Your task to perform on an android device: Show me popular videos on Youtube Image 0: 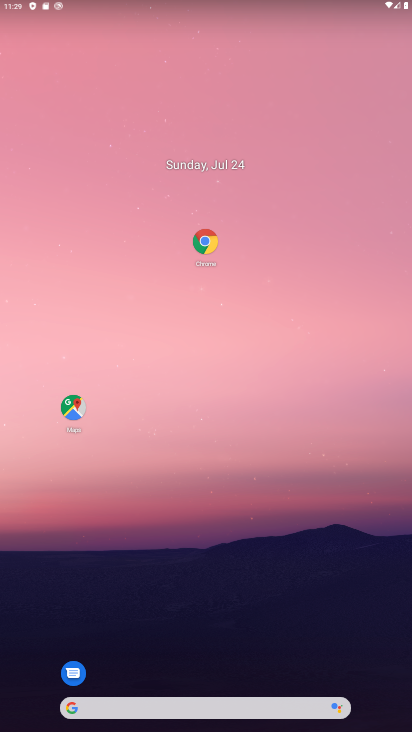
Step 0: drag from (146, 703) to (211, 14)
Your task to perform on an android device: Show me popular videos on Youtube Image 1: 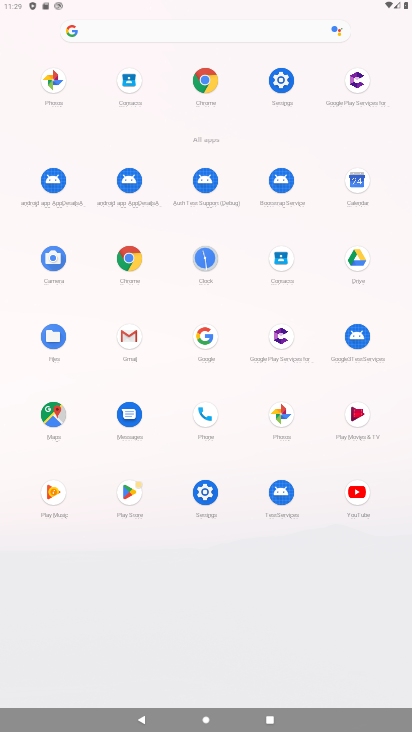
Step 1: click (352, 496)
Your task to perform on an android device: Show me popular videos on Youtube Image 2: 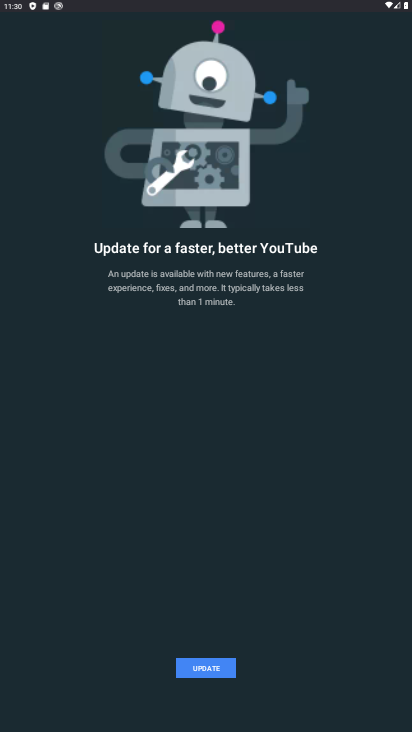
Step 2: click (222, 676)
Your task to perform on an android device: Show me popular videos on Youtube Image 3: 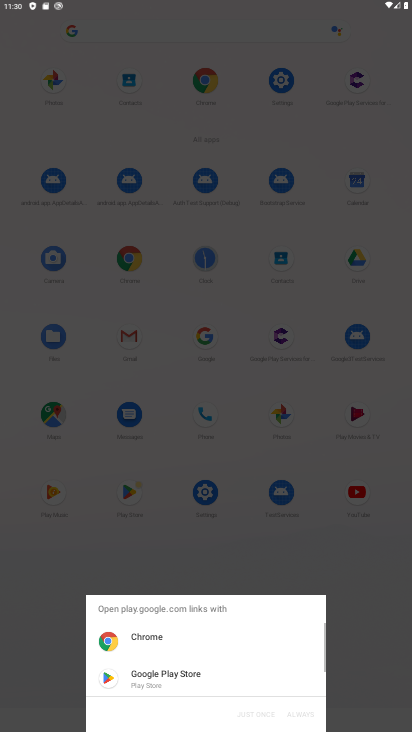
Step 3: click (201, 686)
Your task to perform on an android device: Show me popular videos on Youtube Image 4: 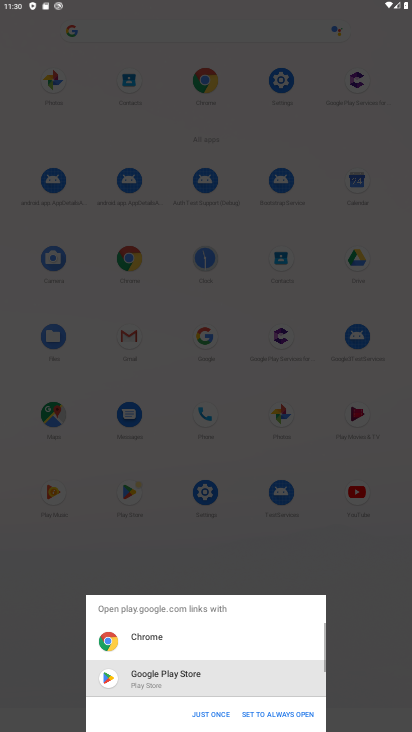
Step 4: click (196, 717)
Your task to perform on an android device: Show me popular videos on Youtube Image 5: 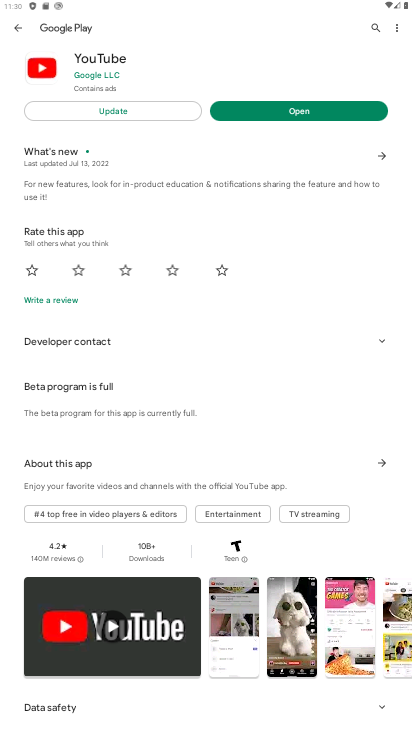
Step 5: click (160, 113)
Your task to perform on an android device: Show me popular videos on Youtube Image 6: 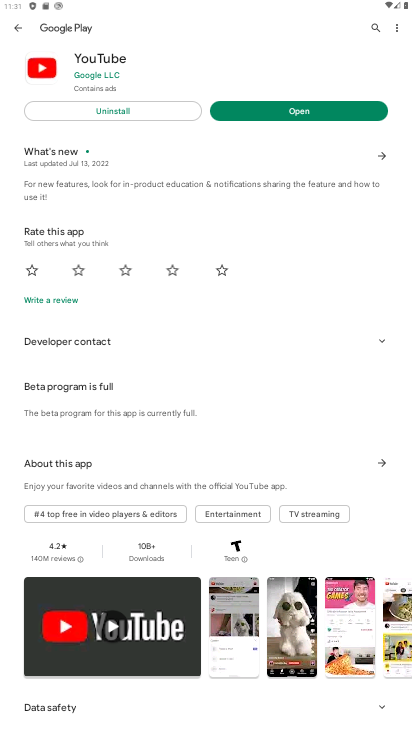
Step 6: click (332, 107)
Your task to perform on an android device: Show me popular videos on Youtube Image 7: 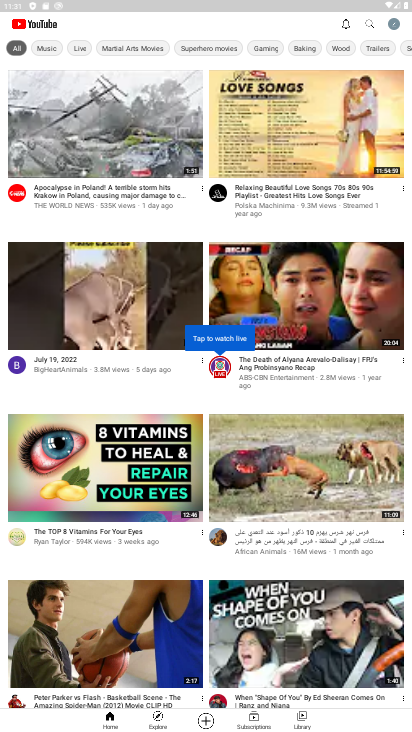
Step 7: task complete